Your task to perform on an android device: turn on notifications settings in the gmail app Image 0: 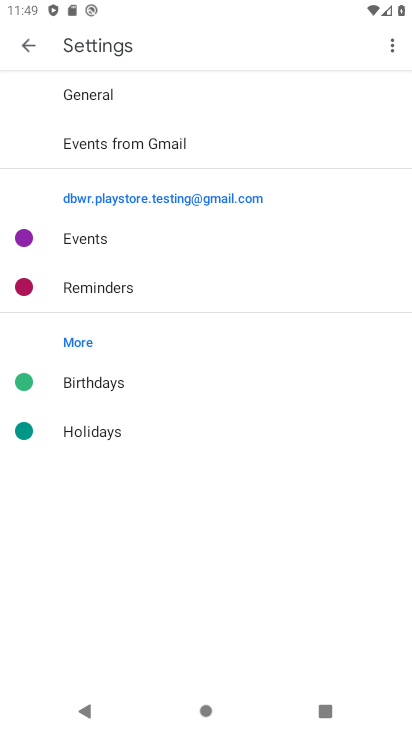
Step 0: drag from (245, 669) to (196, 23)
Your task to perform on an android device: turn on notifications settings in the gmail app Image 1: 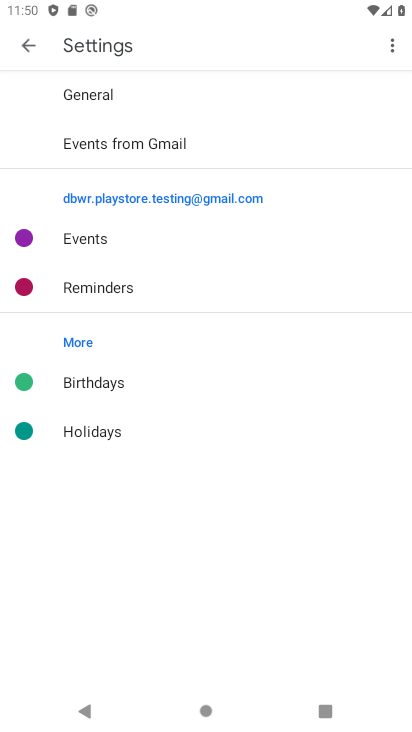
Step 1: click (31, 46)
Your task to perform on an android device: turn on notifications settings in the gmail app Image 2: 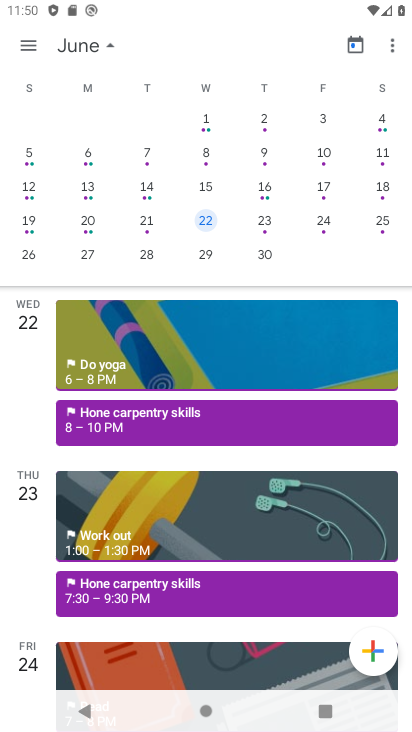
Step 2: press back button
Your task to perform on an android device: turn on notifications settings in the gmail app Image 3: 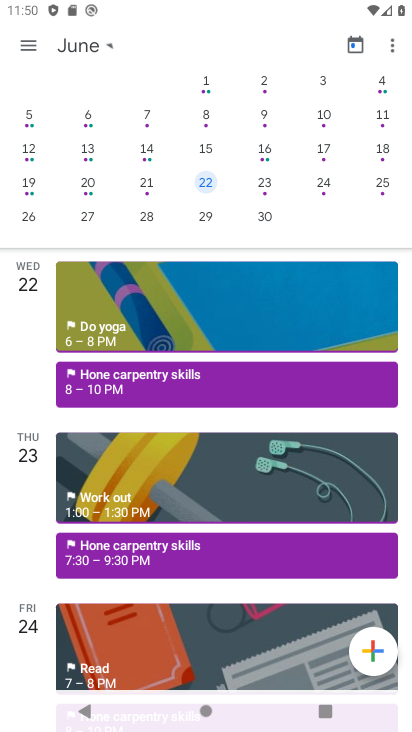
Step 3: press back button
Your task to perform on an android device: turn on notifications settings in the gmail app Image 4: 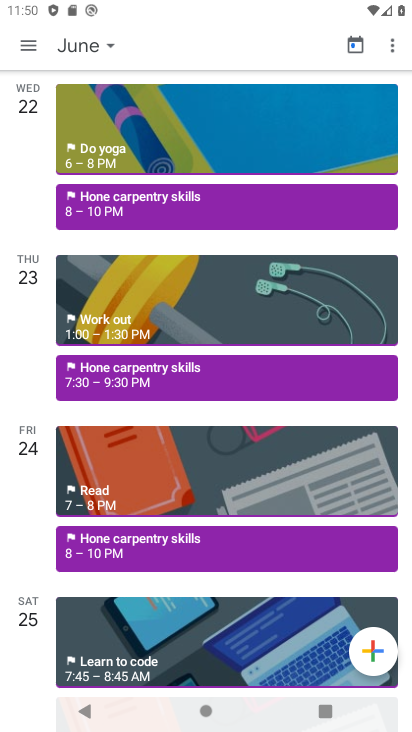
Step 4: press back button
Your task to perform on an android device: turn on notifications settings in the gmail app Image 5: 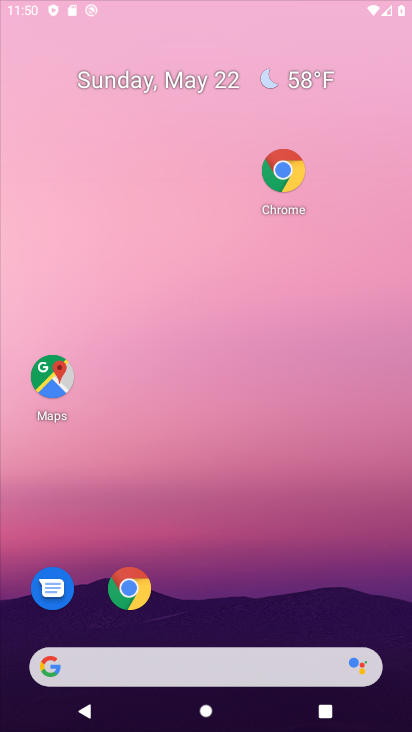
Step 5: press back button
Your task to perform on an android device: turn on notifications settings in the gmail app Image 6: 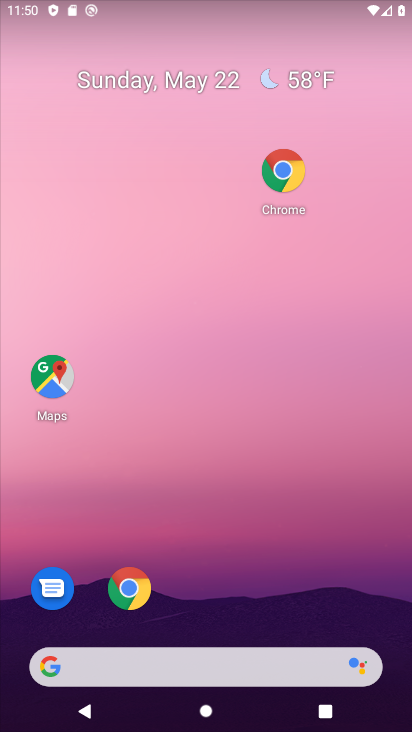
Step 6: drag from (262, 695) to (227, 91)
Your task to perform on an android device: turn on notifications settings in the gmail app Image 7: 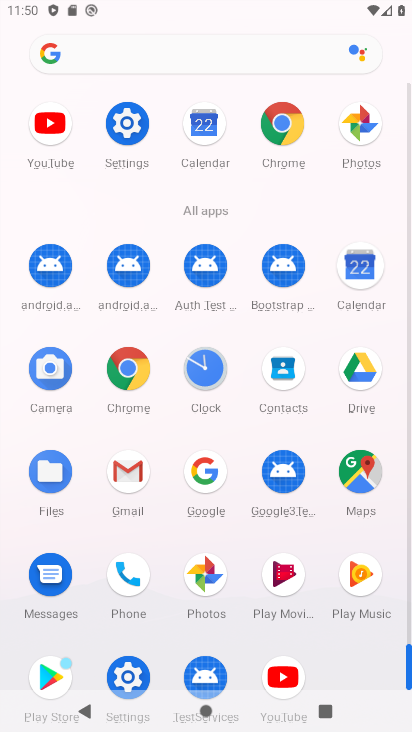
Step 7: click (122, 470)
Your task to perform on an android device: turn on notifications settings in the gmail app Image 8: 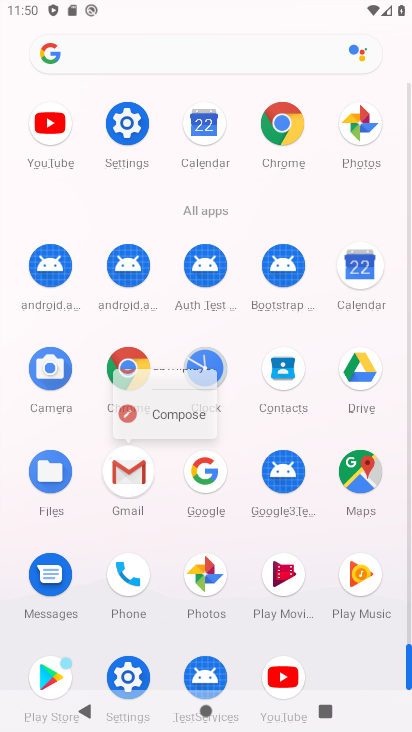
Step 8: click (123, 469)
Your task to perform on an android device: turn on notifications settings in the gmail app Image 9: 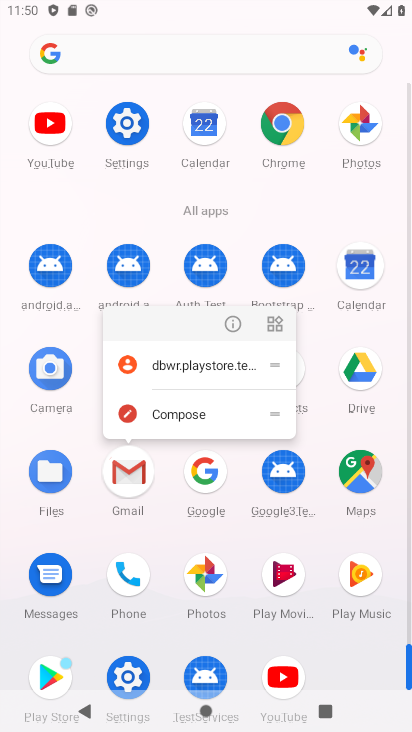
Step 9: click (123, 469)
Your task to perform on an android device: turn on notifications settings in the gmail app Image 10: 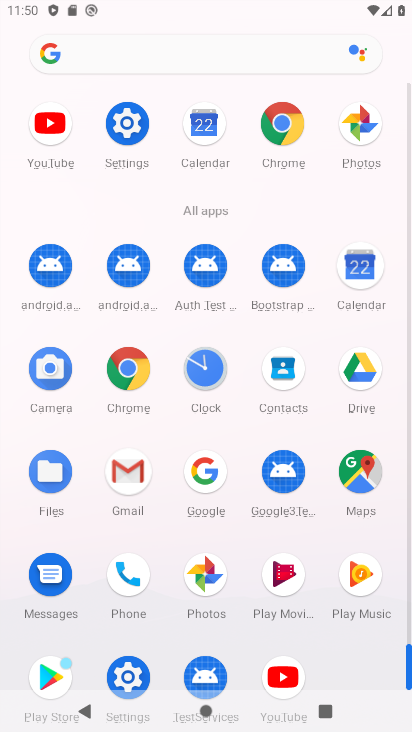
Step 10: click (123, 469)
Your task to perform on an android device: turn on notifications settings in the gmail app Image 11: 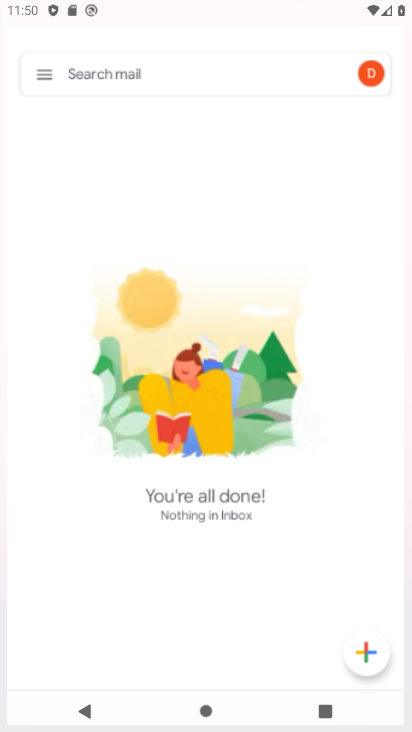
Step 11: click (123, 469)
Your task to perform on an android device: turn on notifications settings in the gmail app Image 12: 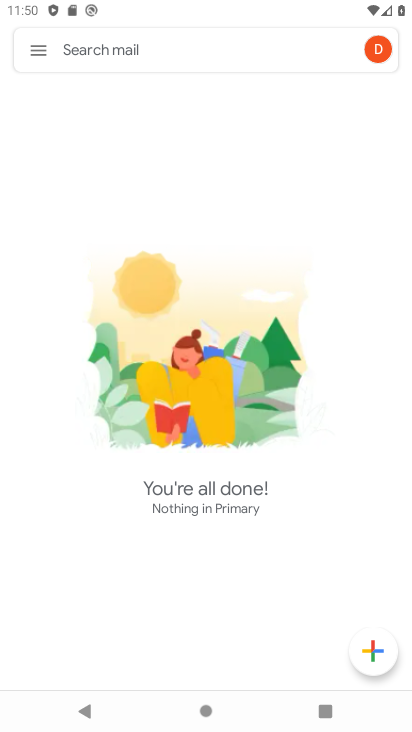
Step 12: click (37, 54)
Your task to perform on an android device: turn on notifications settings in the gmail app Image 13: 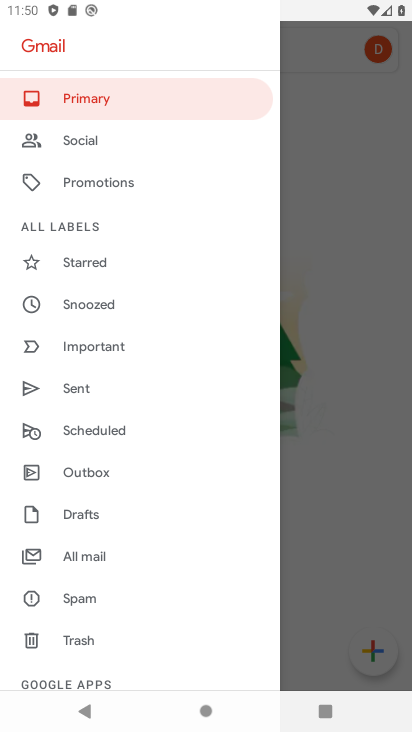
Step 13: drag from (104, 485) to (101, 136)
Your task to perform on an android device: turn on notifications settings in the gmail app Image 14: 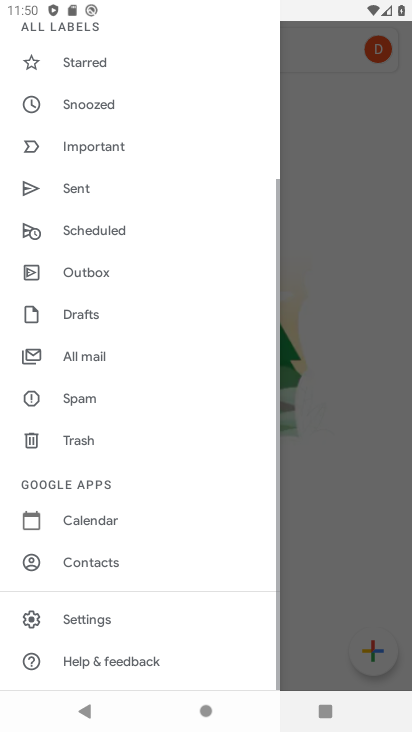
Step 14: drag from (104, 413) to (117, 133)
Your task to perform on an android device: turn on notifications settings in the gmail app Image 15: 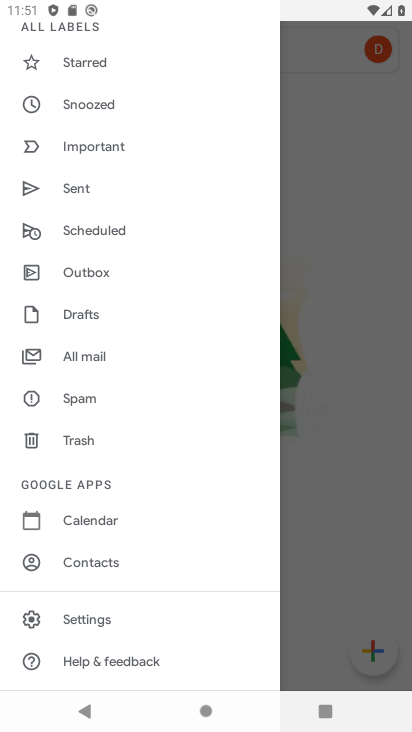
Step 15: click (75, 617)
Your task to perform on an android device: turn on notifications settings in the gmail app Image 16: 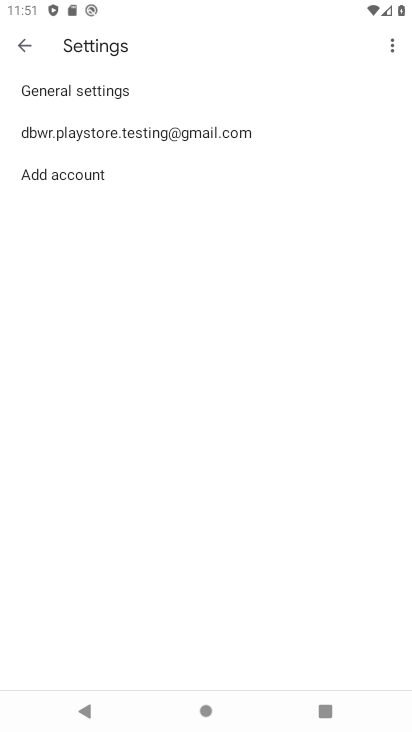
Step 16: click (98, 129)
Your task to perform on an android device: turn on notifications settings in the gmail app Image 17: 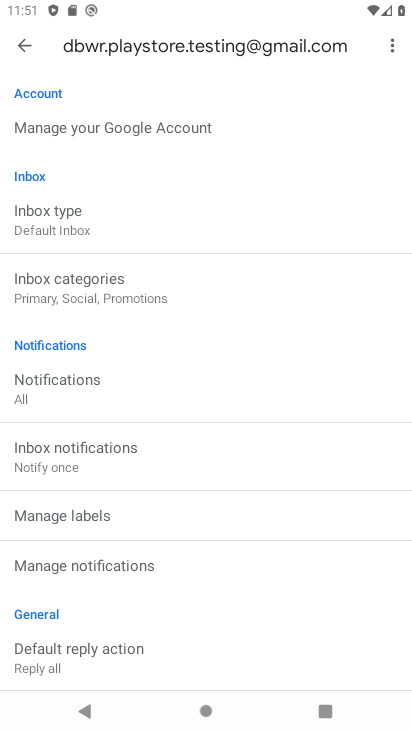
Step 17: drag from (108, 470) to (128, 131)
Your task to perform on an android device: turn on notifications settings in the gmail app Image 18: 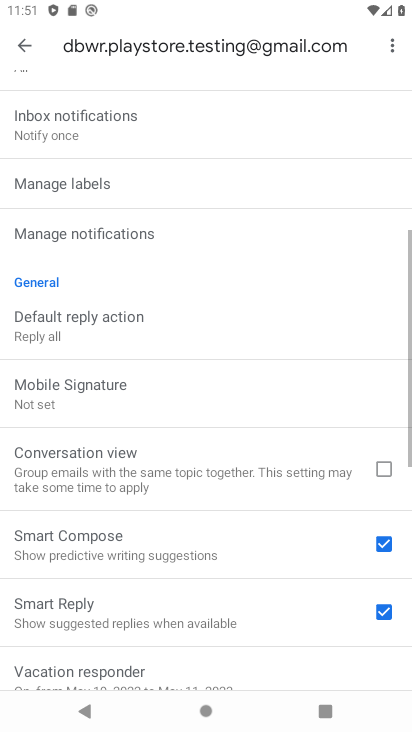
Step 18: click (97, 11)
Your task to perform on an android device: turn on notifications settings in the gmail app Image 19: 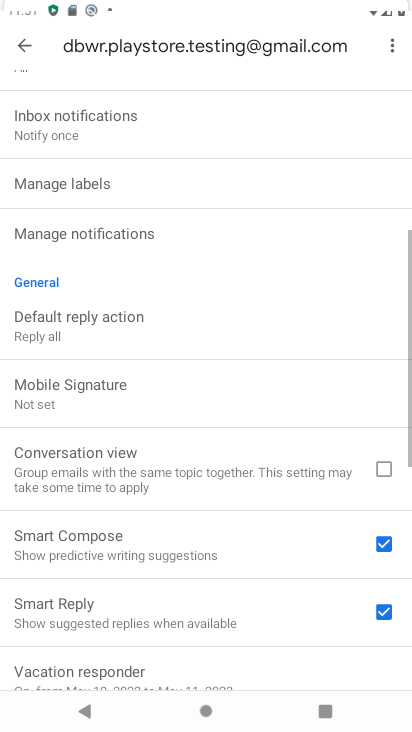
Step 19: drag from (104, 384) to (103, 57)
Your task to perform on an android device: turn on notifications settings in the gmail app Image 20: 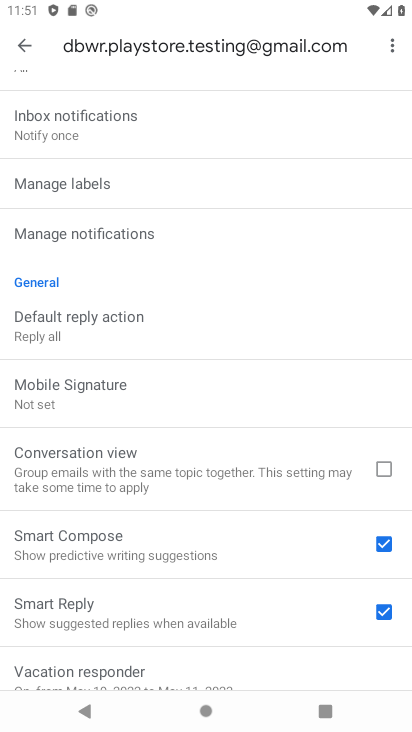
Step 20: click (35, 127)
Your task to perform on an android device: turn on notifications settings in the gmail app Image 21: 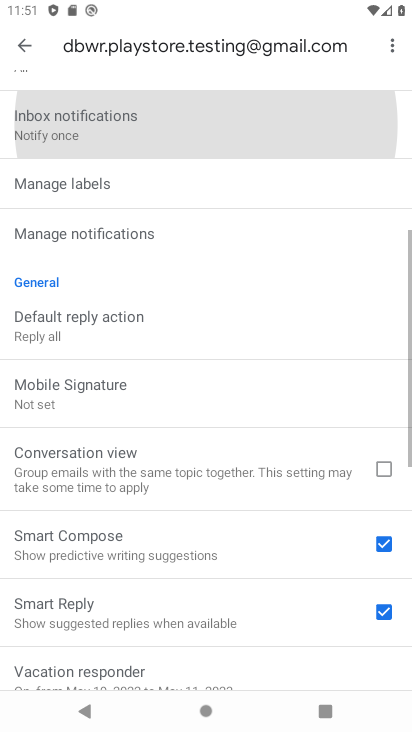
Step 21: click (36, 127)
Your task to perform on an android device: turn on notifications settings in the gmail app Image 22: 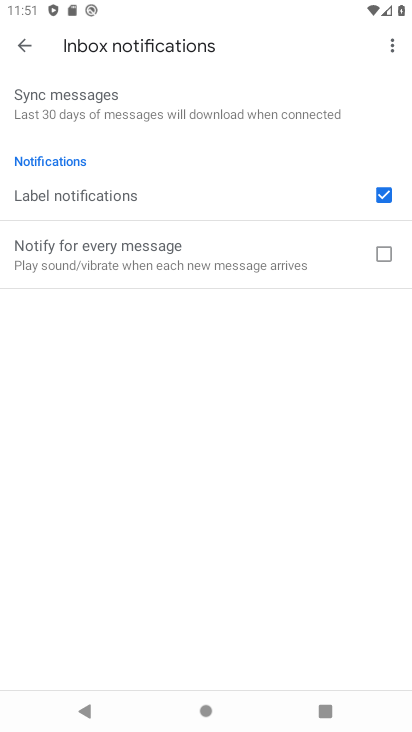
Step 22: click (36, 127)
Your task to perform on an android device: turn on notifications settings in the gmail app Image 23: 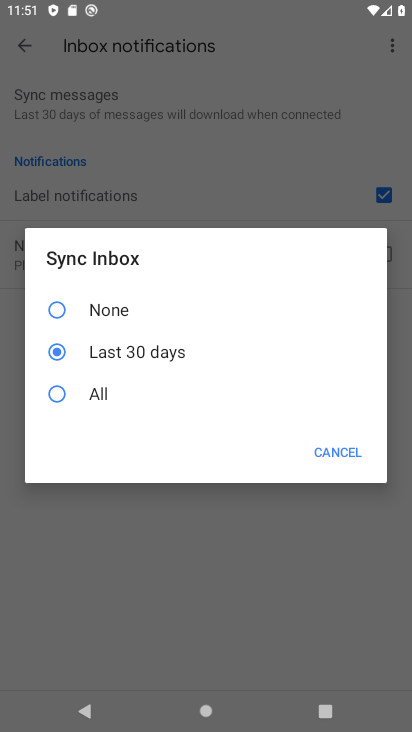
Step 23: click (27, 44)
Your task to perform on an android device: turn on notifications settings in the gmail app Image 24: 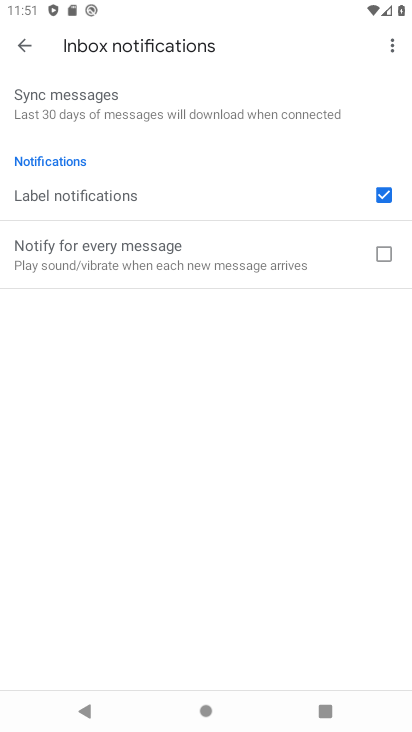
Step 24: click (16, 48)
Your task to perform on an android device: turn on notifications settings in the gmail app Image 25: 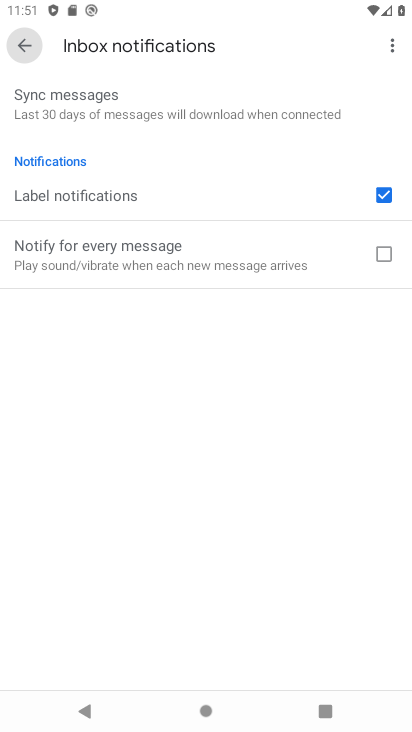
Step 25: click (21, 45)
Your task to perform on an android device: turn on notifications settings in the gmail app Image 26: 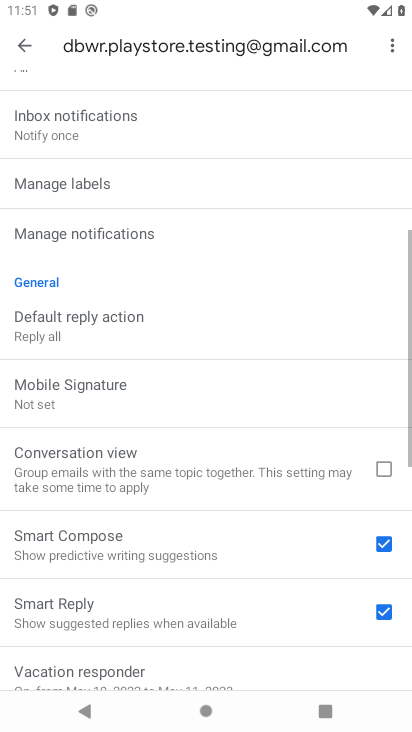
Step 26: click (22, 44)
Your task to perform on an android device: turn on notifications settings in the gmail app Image 27: 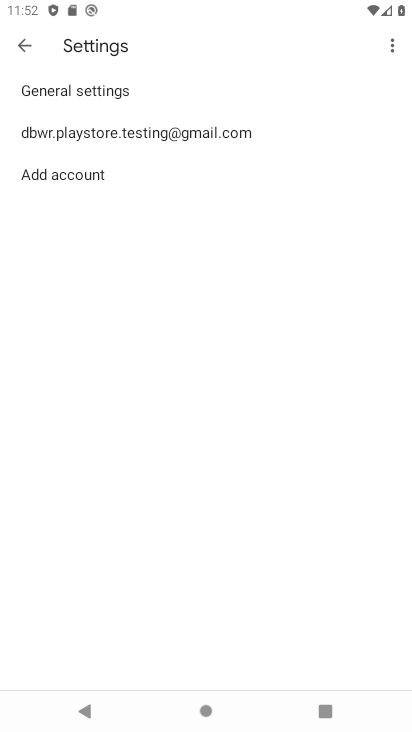
Step 27: click (98, 128)
Your task to perform on an android device: turn on notifications settings in the gmail app Image 28: 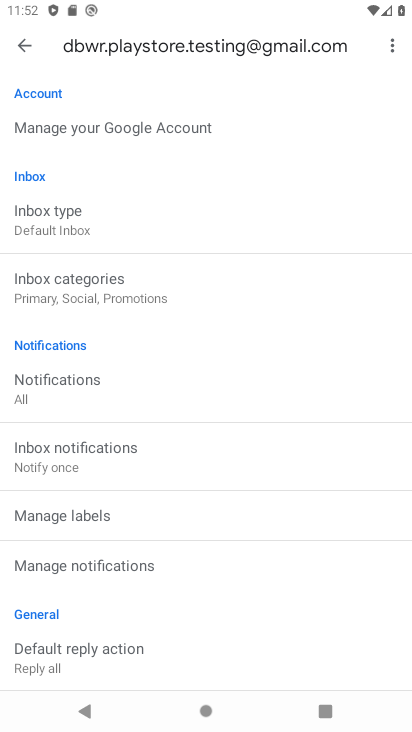
Step 28: click (56, 373)
Your task to perform on an android device: turn on notifications settings in the gmail app Image 29: 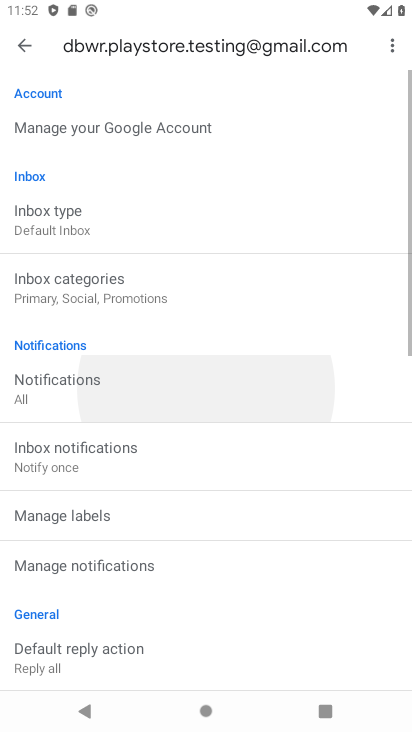
Step 29: click (56, 373)
Your task to perform on an android device: turn on notifications settings in the gmail app Image 30: 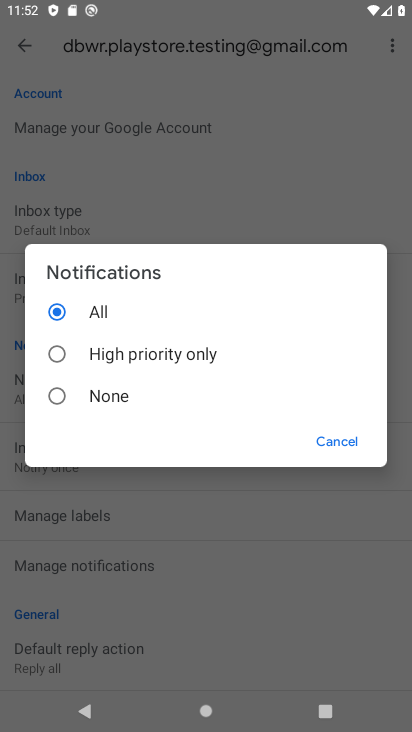
Step 30: click (327, 442)
Your task to perform on an android device: turn on notifications settings in the gmail app Image 31: 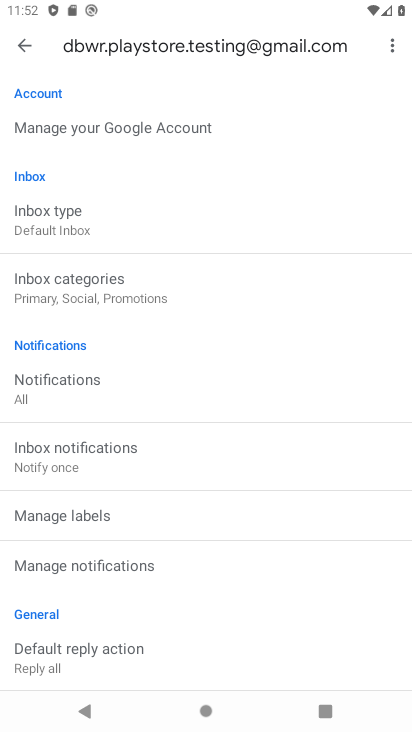
Step 31: task complete